Your task to perform on an android device: Open internet settings Image 0: 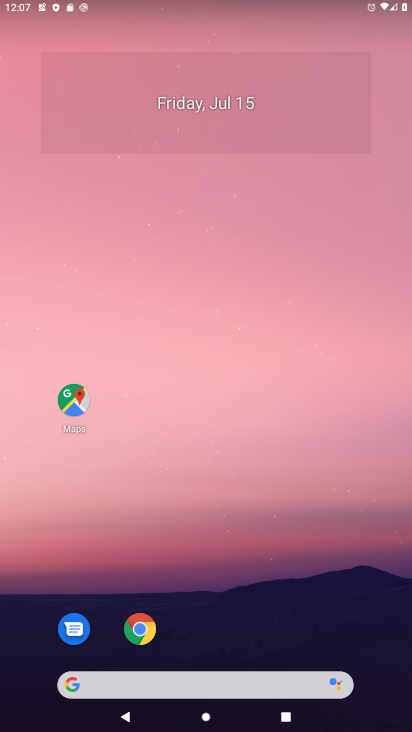
Step 0: drag from (246, 628) to (273, 75)
Your task to perform on an android device: Open internet settings Image 1: 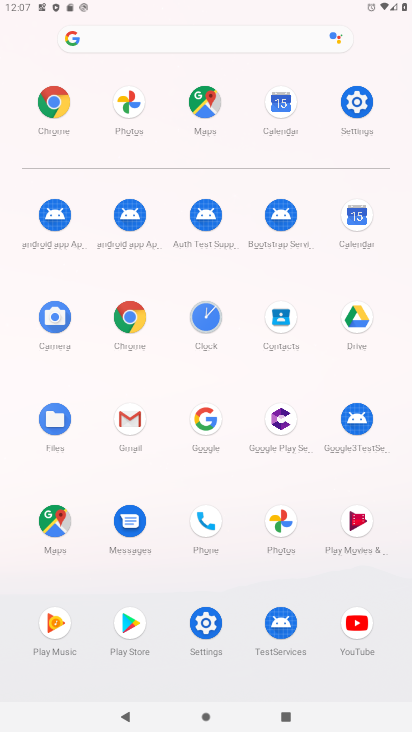
Step 1: click (348, 98)
Your task to perform on an android device: Open internet settings Image 2: 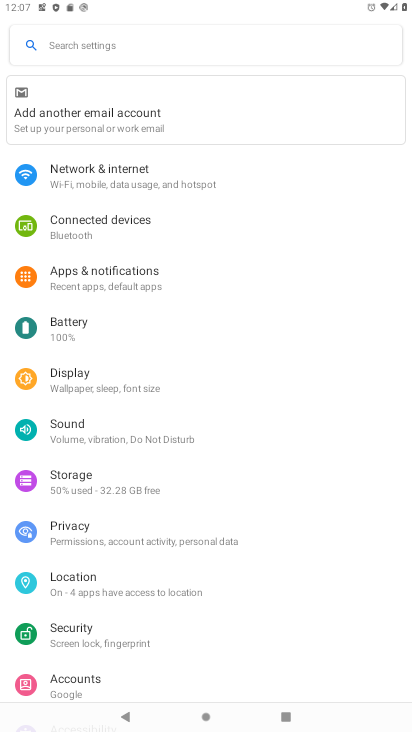
Step 2: click (98, 176)
Your task to perform on an android device: Open internet settings Image 3: 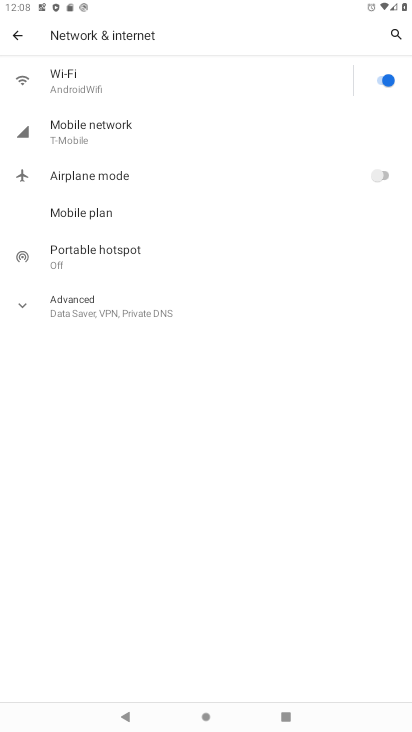
Step 3: task complete